Your task to perform on an android device: add a contact in the contacts app Image 0: 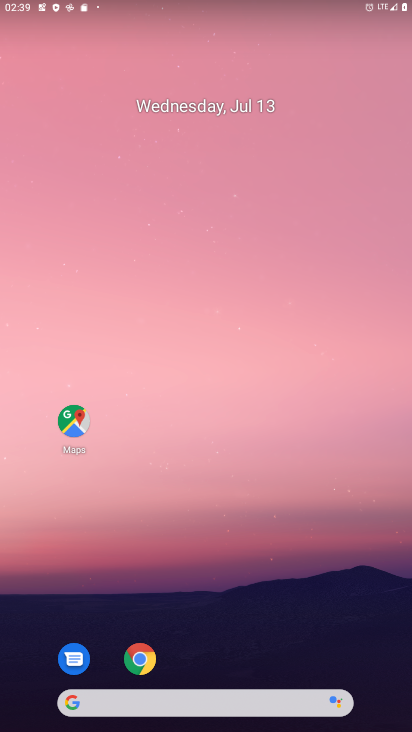
Step 0: drag from (212, 731) to (212, 219)
Your task to perform on an android device: add a contact in the contacts app Image 1: 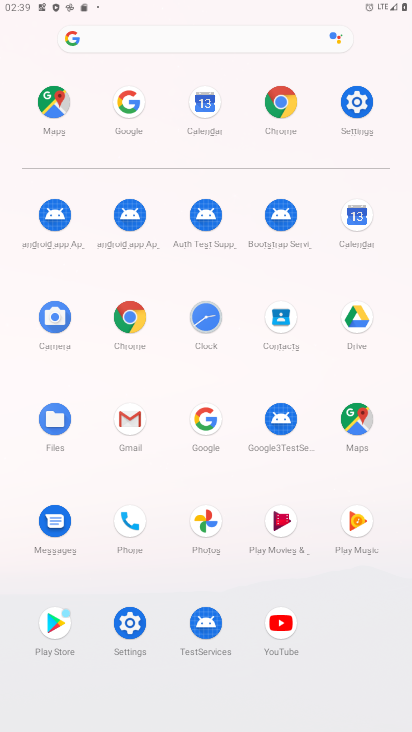
Step 1: click (281, 317)
Your task to perform on an android device: add a contact in the contacts app Image 2: 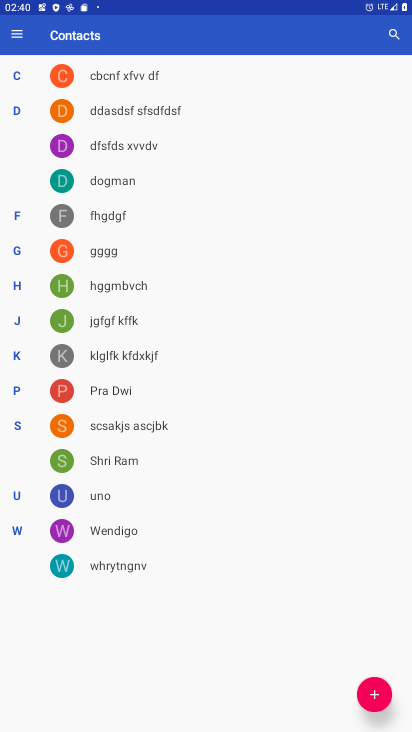
Step 2: click (374, 689)
Your task to perform on an android device: add a contact in the contacts app Image 3: 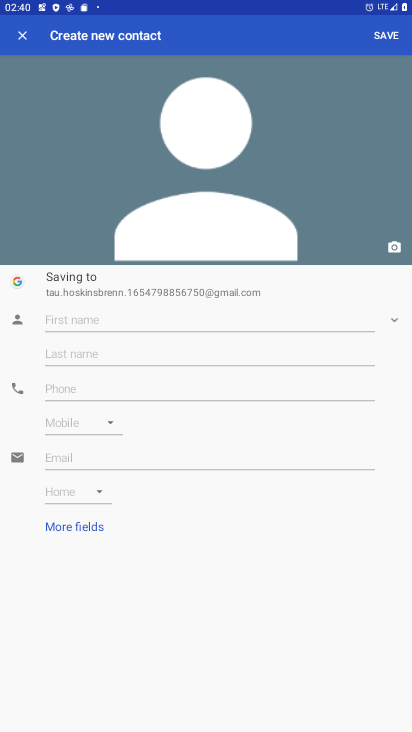
Step 3: click (121, 316)
Your task to perform on an android device: add a contact in the contacts app Image 4: 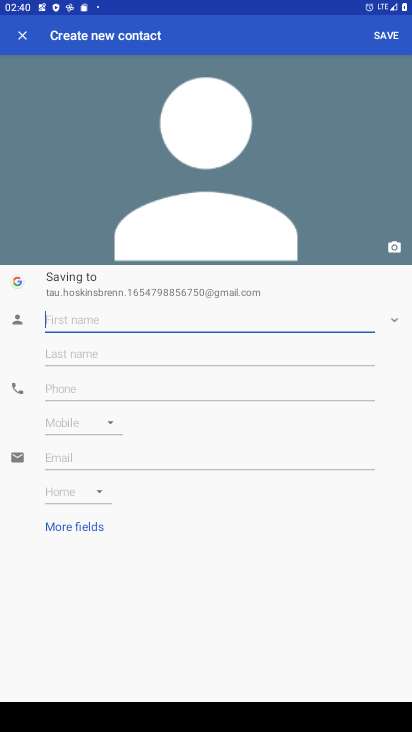
Step 4: type "rolex"
Your task to perform on an android device: add a contact in the contacts app Image 5: 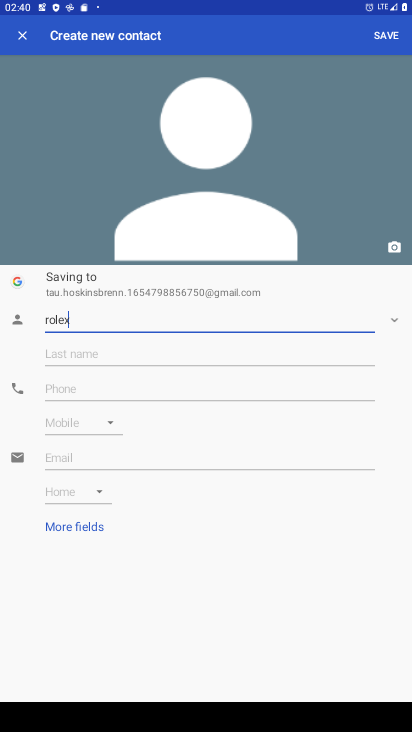
Step 5: type ""
Your task to perform on an android device: add a contact in the contacts app Image 6: 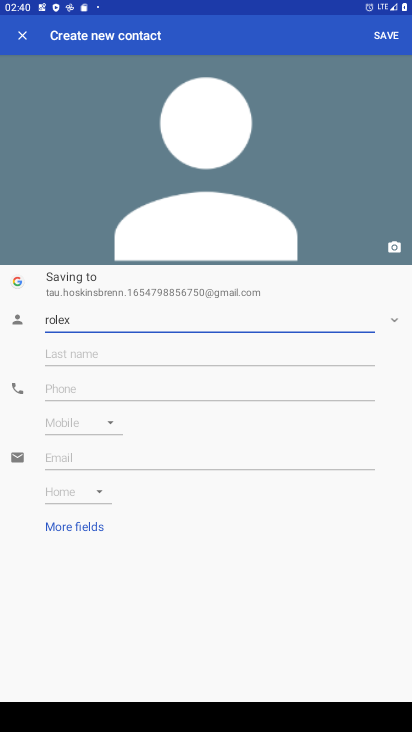
Step 6: click (90, 394)
Your task to perform on an android device: add a contact in the contacts app Image 7: 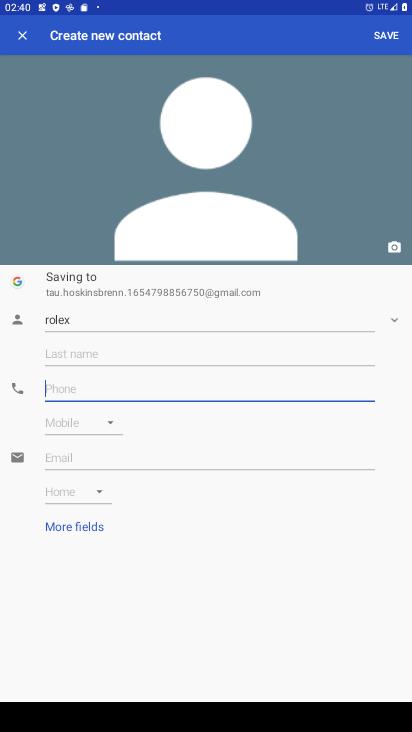
Step 7: type "78777"
Your task to perform on an android device: add a contact in the contacts app Image 8: 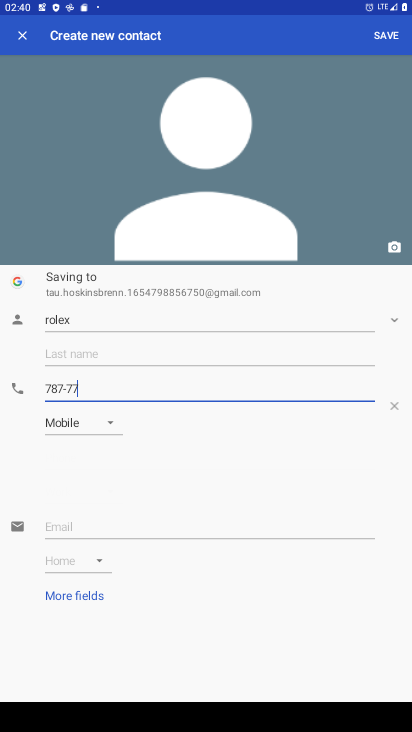
Step 8: type ""
Your task to perform on an android device: add a contact in the contacts app Image 9: 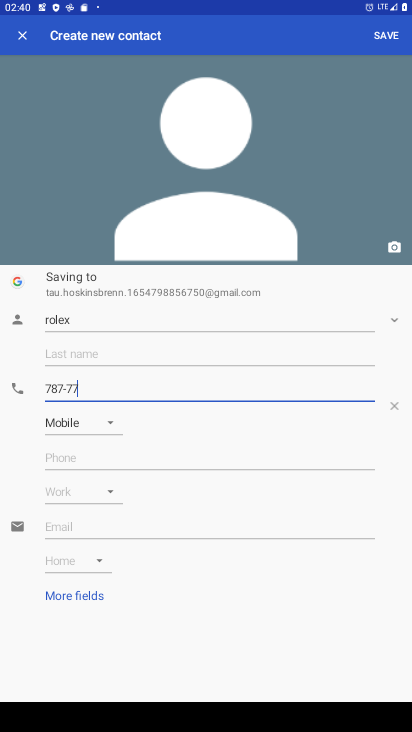
Step 9: click (382, 30)
Your task to perform on an android device: add a contact in the contacts app Image 10: 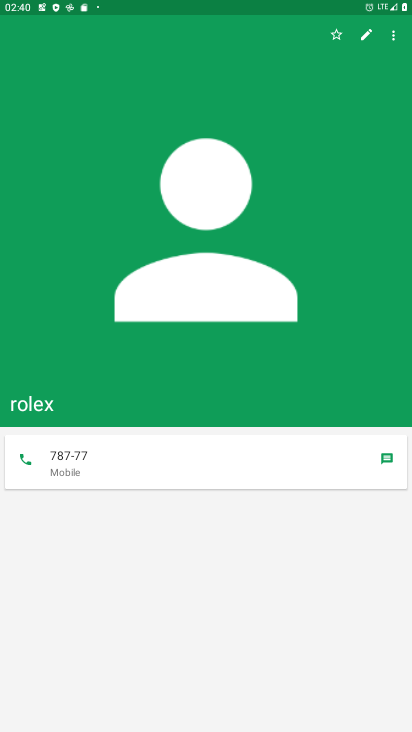
Step 10: task complete